Your task to perform on an android device: Add "energizer triple a" to the cart on costco.com, then select checkout. Image 0: 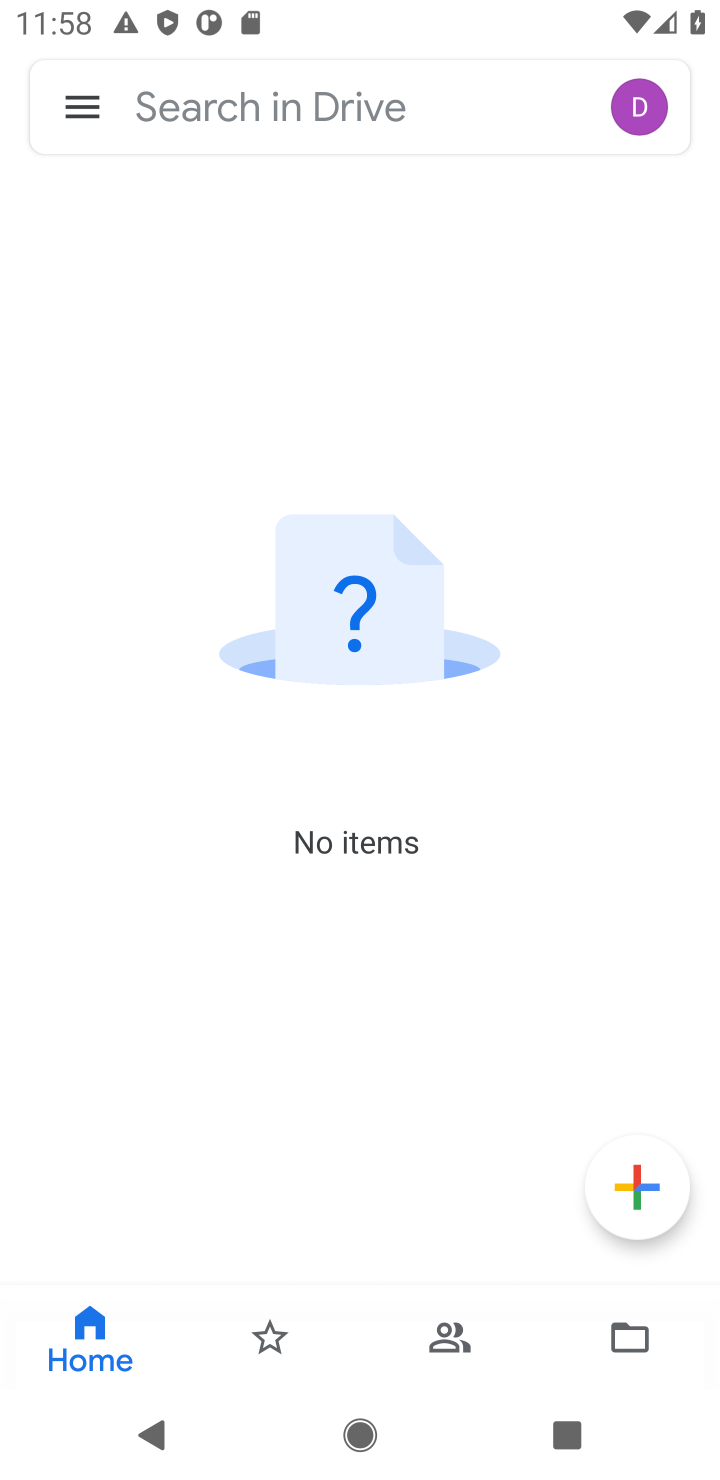
Step 0: press home button
Your task to perform on an android device: Add "energizer triple a" to the cart on costco.com, then select checkout. Image 1: 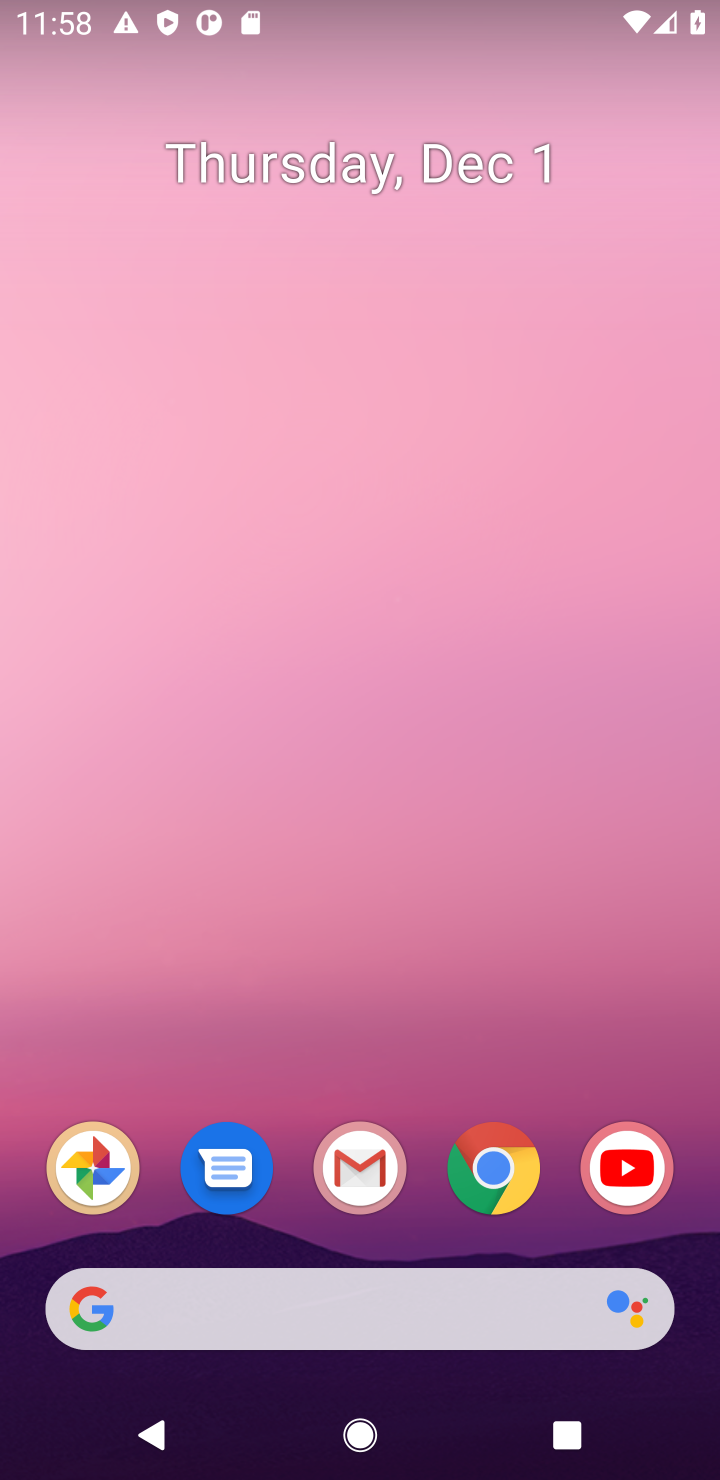
Step 1: click (72, 1295)
Your task to perform on an android device: Add "energizer triple a" to the cart on costco.com, then select checkout. Image 2: 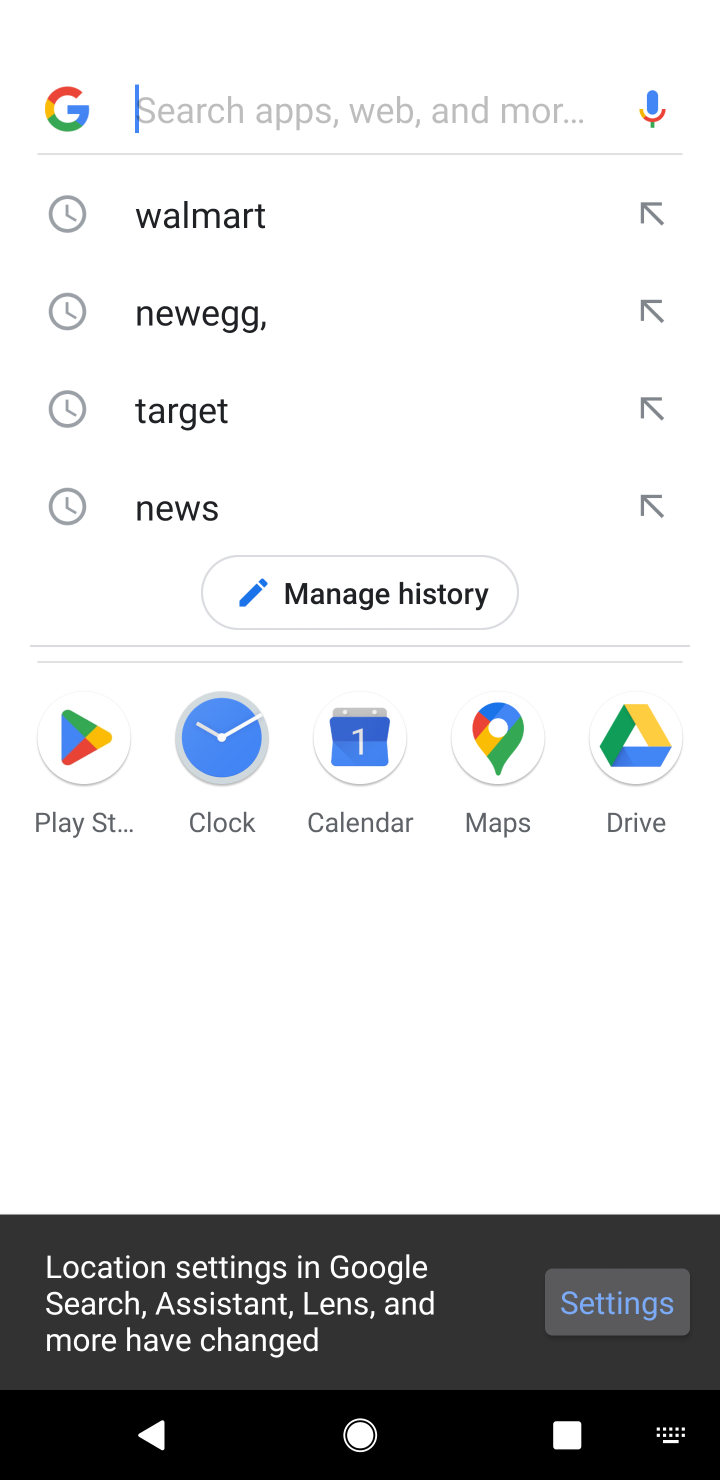
Step 2: click (313, 115)
Your task to perform on an android device: Add "energizer triple a" to the cart on costco.com, then select checkout. Image 3: 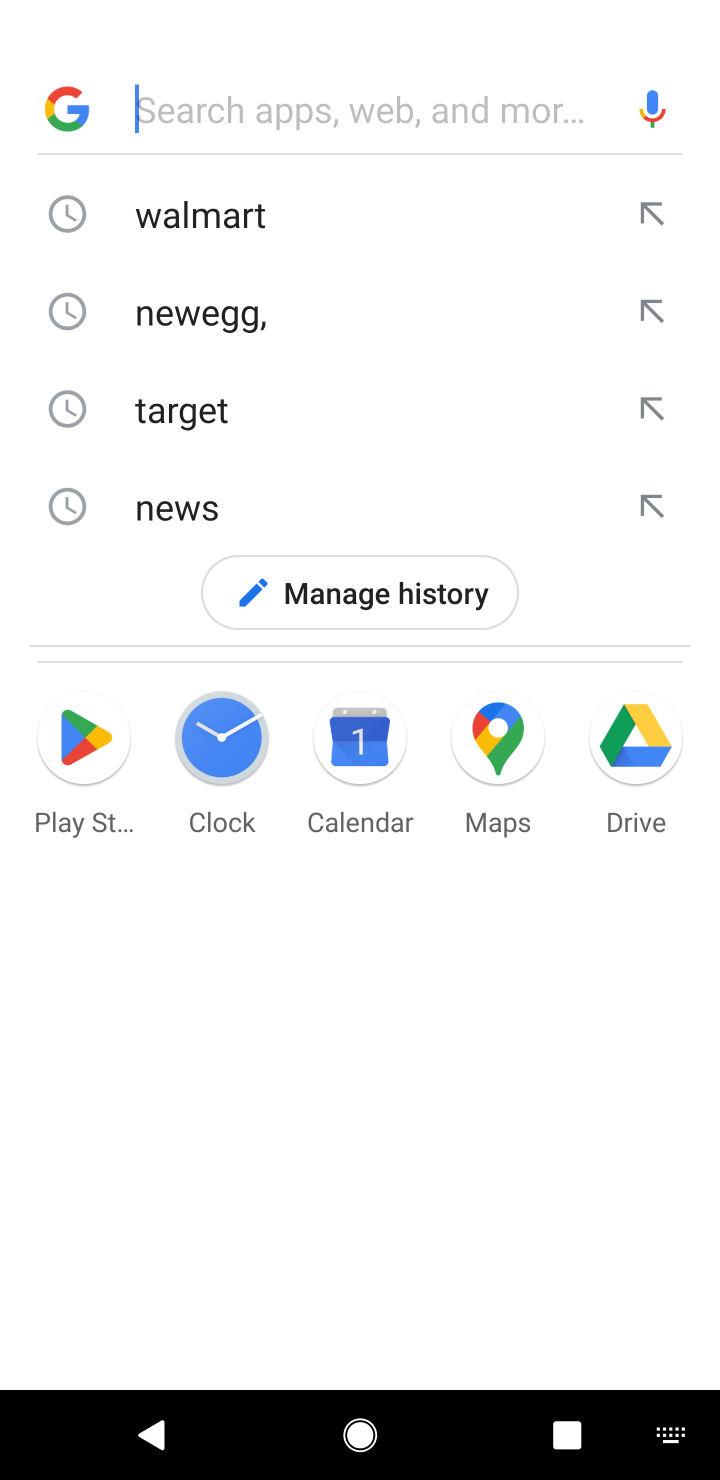
Step 3: type "costco.com"
Your task to perform on an android device: Add "energizer triple a" to the cart on costco.com, then select checkout. Image 4: 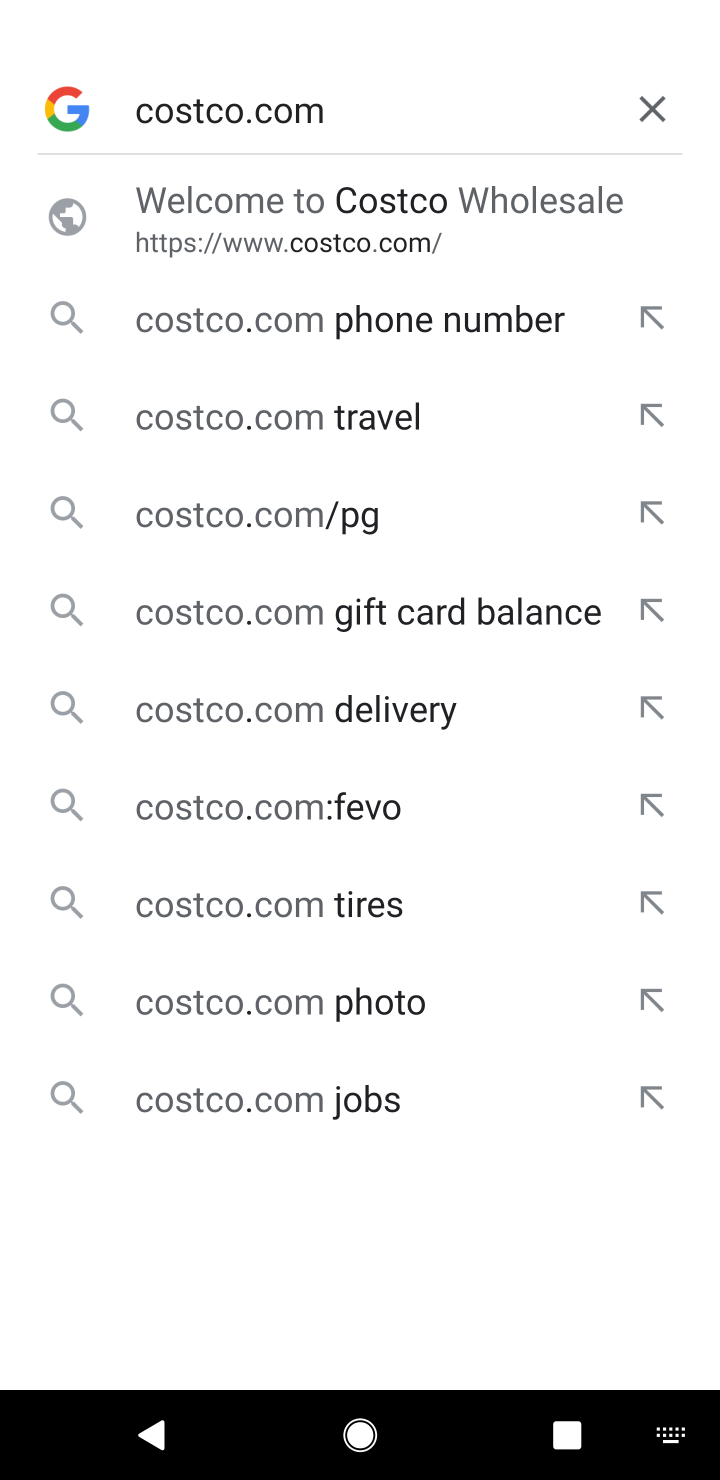
Step 4: click (538, 208)
Your task to perform on an android device: Add "energizer triple a" to the cart on costco.com, then select checkout. Image 5: 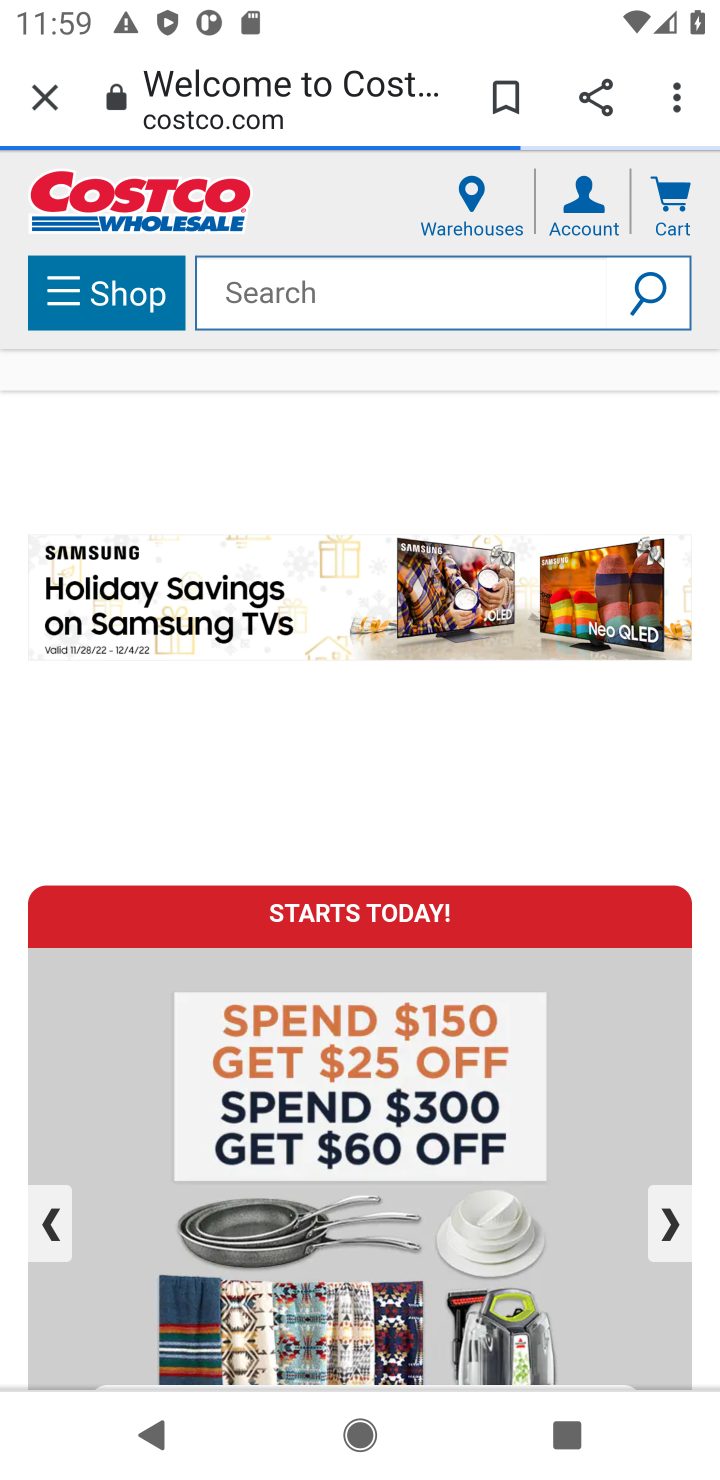
Step 5: click (440, 294)
Your task to perform on an android device: Add "energizer triple a" to the cart on costco.com, then select checkout. Image 6: 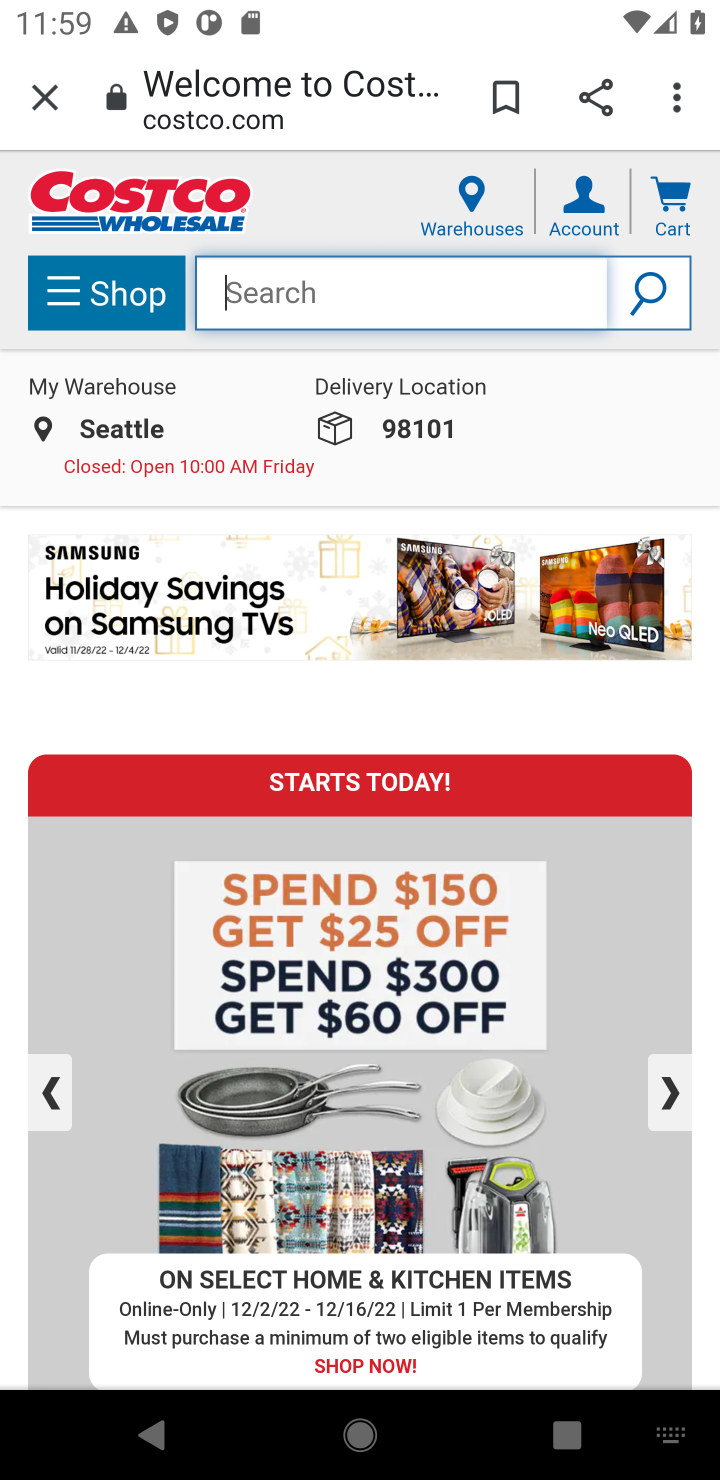
Step 6: type "energizer triple a"
Your task to perform on an android device: Add "energizer triple a" to the cart on costco.com, then select checkout. Image 7: 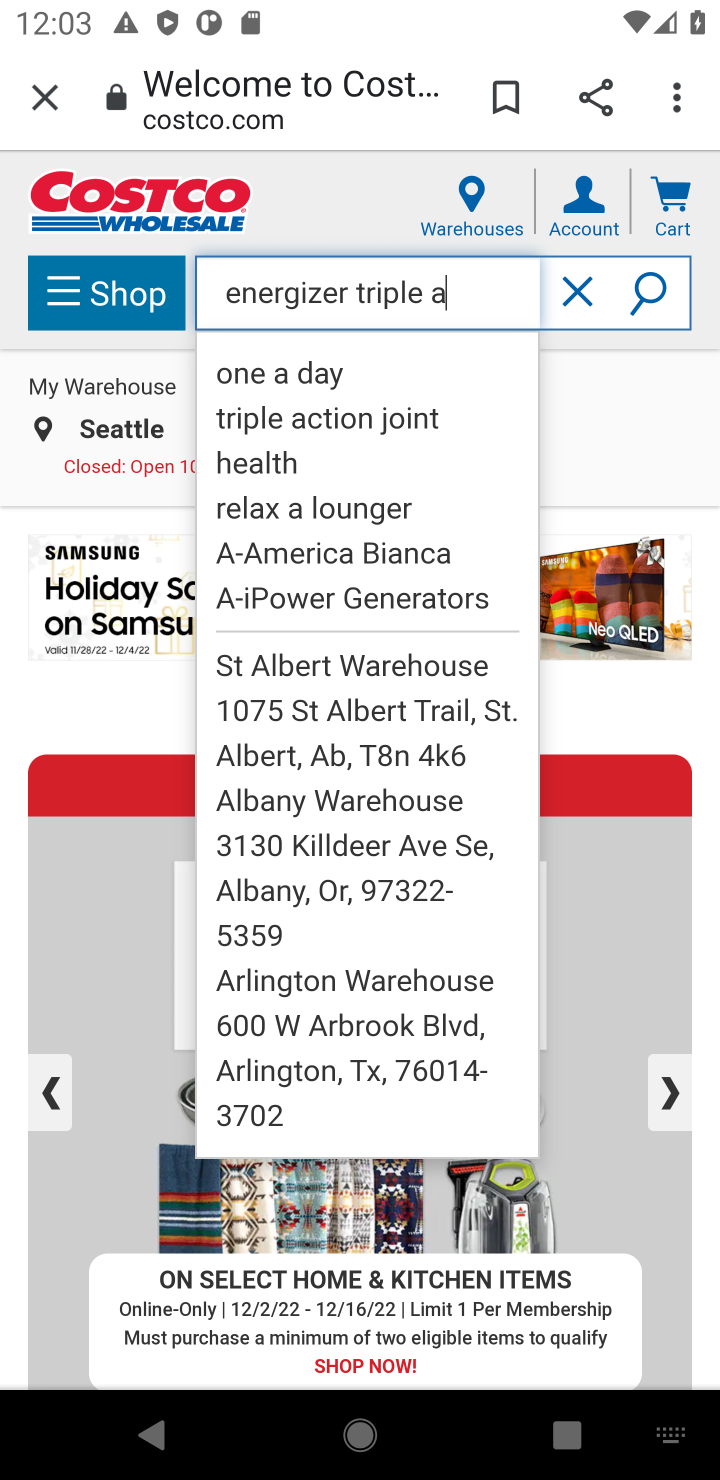
Step 7: click (278, 379)
Your task to perform on an android device: Add "energizer triple a" to the cart on costco.com, then select checkout. Image 8: 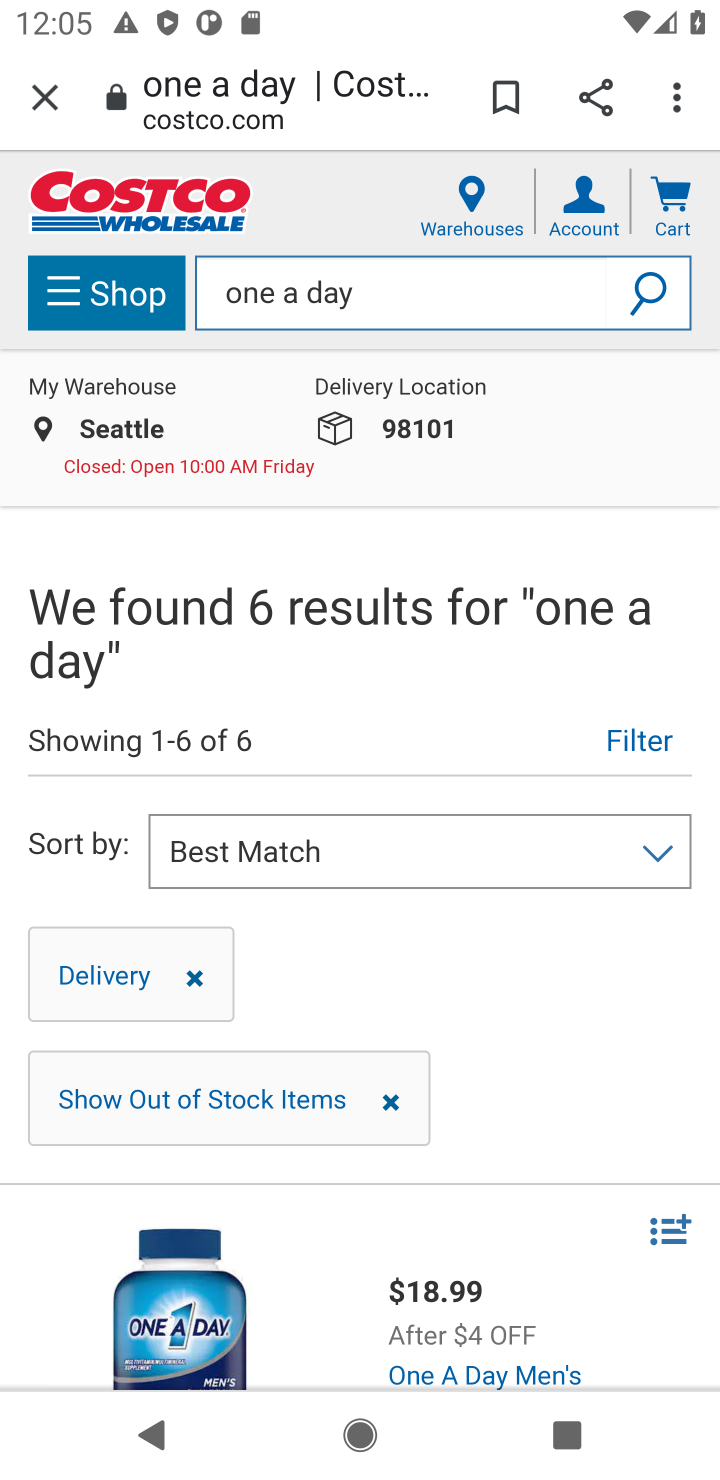
Step 8: task complete